Your task to perform on an android device: set default search engine in the chrome app Image 0: 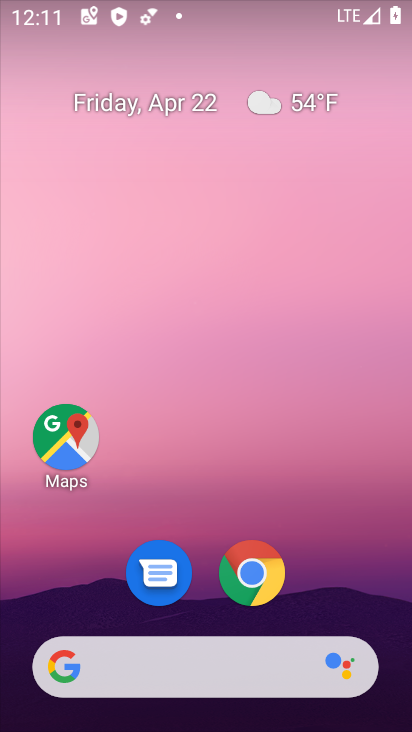
Step 0: drag from (361, 568) to (353, 65)
Your task to perform on an android device: set default search engine in the chrome app Image 1: 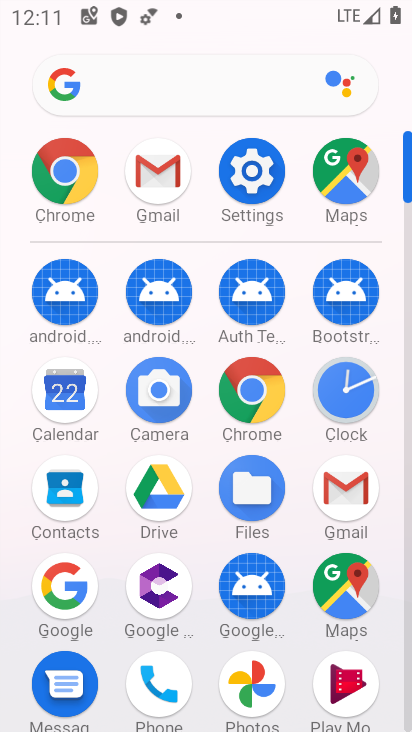
Step 1: click (246, 388)
Your task to perform on an android device: set default search engine in the chrome app Image 2: 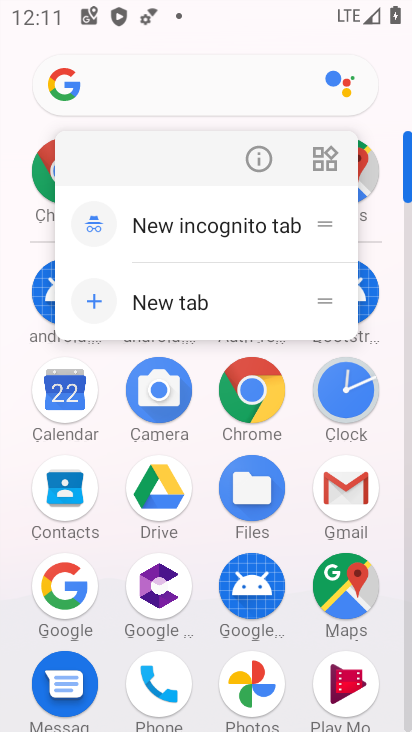
Step 2: click (242, 397)
Your task to perform on an android device: set default search engine in the chrome app Image 3: 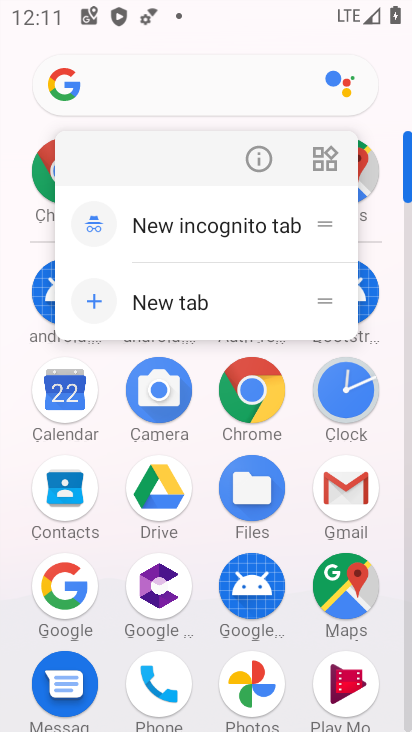
Step 3: click (242, 411)
Your task to perform on an android device: set default search engine in the chrome app Image 4: 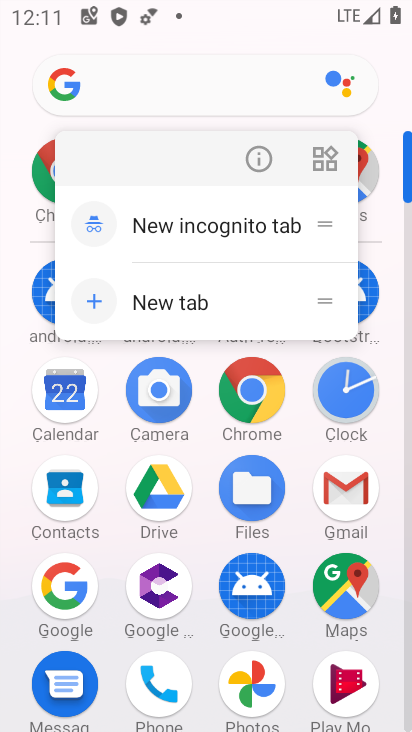
Step 4: click (255, 419)
Your task to perform on an android device: set default search engine in the chrome app Image 5: 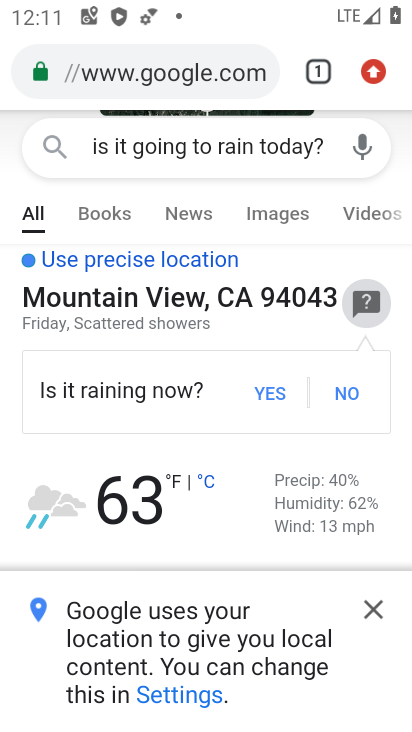
Step 5: drag from (367, 83) to (173, 570)
Your task to perform on an android device: set default search engine in the chrome app Image 6: 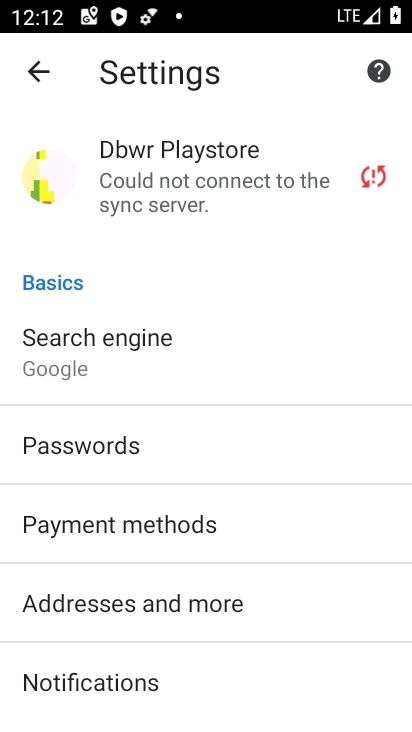
Step 6: click (133, 334)
Your task to perform on an android device: set default search engine in the chrome app Image 7: 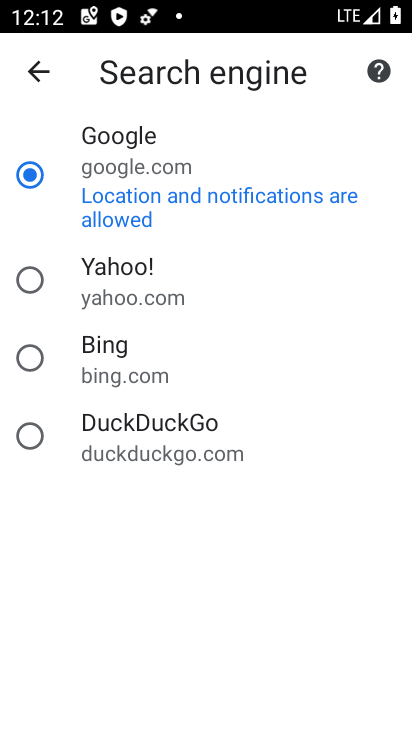
Step 7: click (50, 275)
Your task to perform on an android device: set default search engine in the chrome app Image 8: 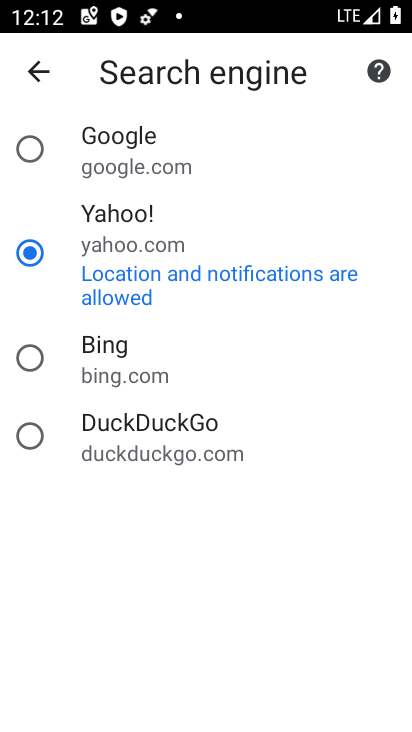
Step 8: task complete